Your task to perform on an android device: Open Wikipedia Image 0: 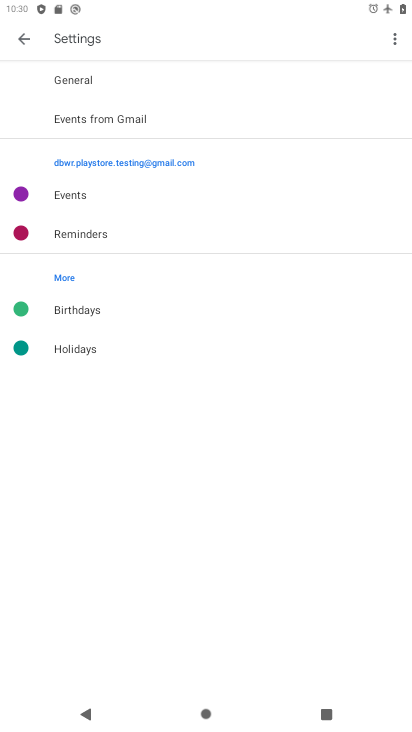
Step 0: press home button
Your task to perform on an android device: Open Wikipedia Image 1: 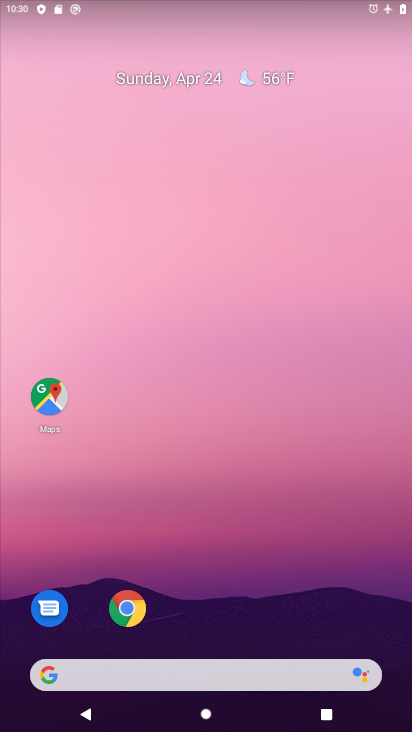
Step 1: drag from (213, 646) to (214, 97)
Your task to perform on an android device: Open Wikipedia Image 2: 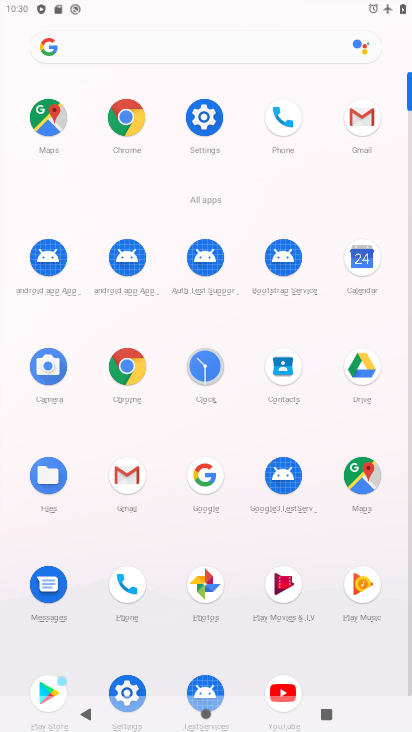
Step 2: click (133, 371)
Your task to perform on an android device: Open Wikipedia Image 3: 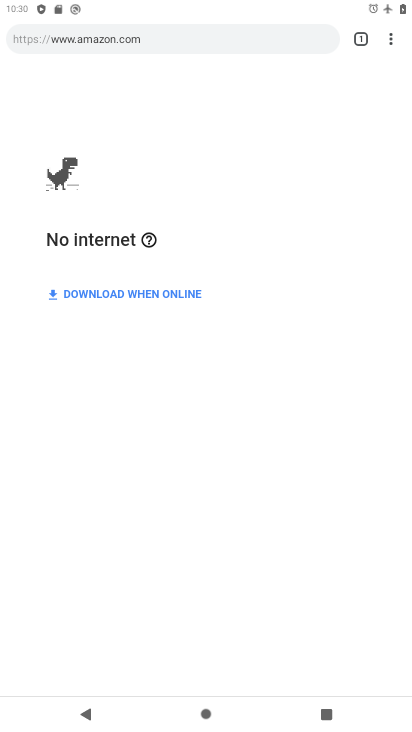
Step 3: click (362, 35)
Your task to perform on an android device: Open Wikipedia Image 4: 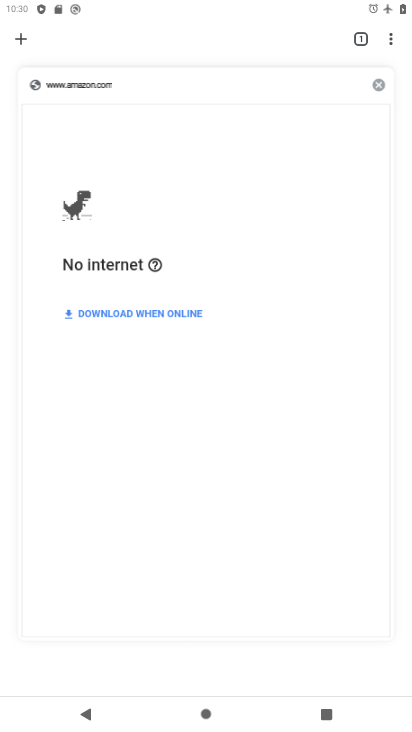
Step 4: click (17, 24)
Your task to perform on an android device: Open Wikipedia Image 5: 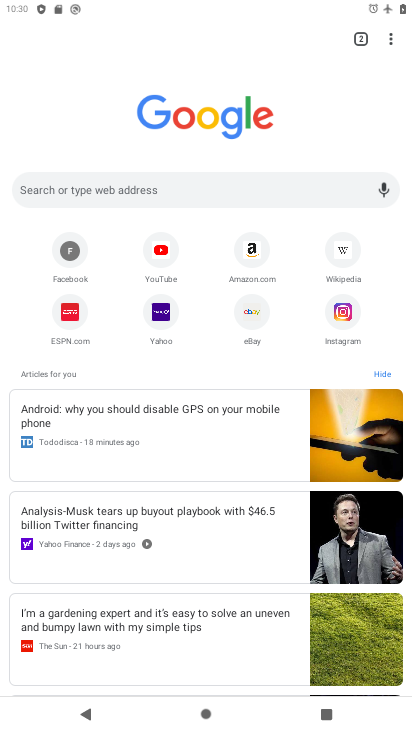
Step 5: click (339, 247)
Your task to perform on an android device: Open Wikipedia Image 6: 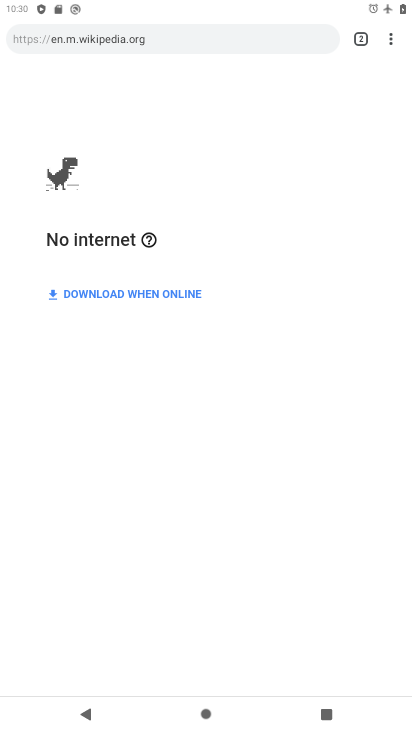
Step 6: task complete